Your task to perform on an android device: choose inbox layout in the gmail app Image 0: 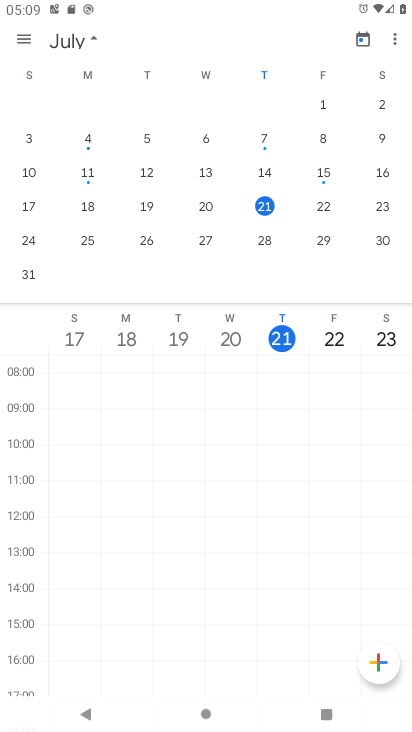
Step 0: press home button
Your task to perform on an android device: choose inbox layout in the gmail app Image 1: 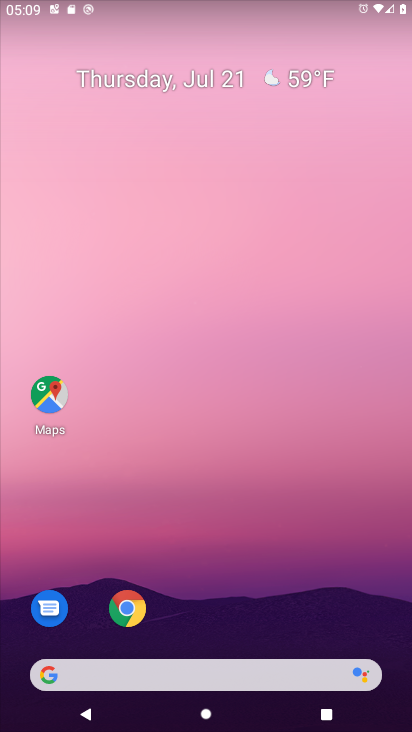
Step 1: drag from (251, 674) to (302, 67)
Your task to perform on an android device: choose inbox layout in the gmail app Image 2: 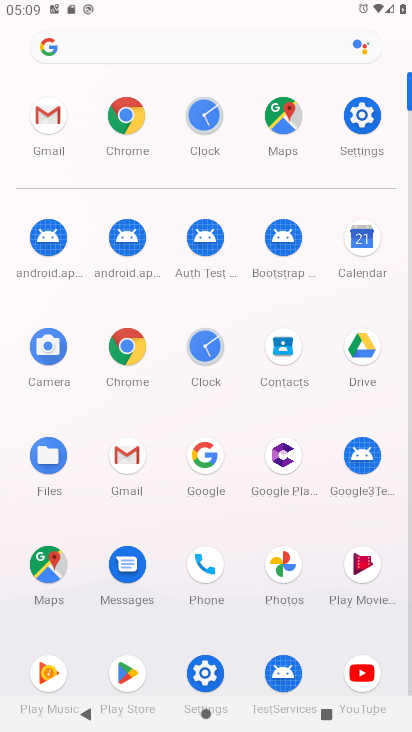
Step 2: click (135, 454)
Your task to perform on an android device: choose inbox layout in the gmail app Image 3: 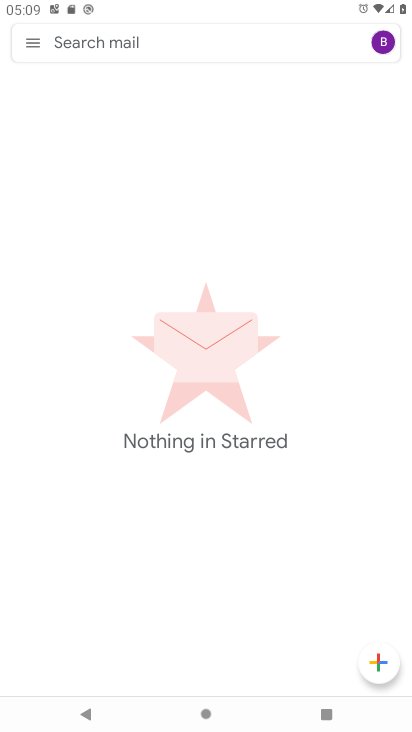
Step 3: click (35, 36)
Your task to perform on an android device: choose inbox layout in the gmail app Image 4: 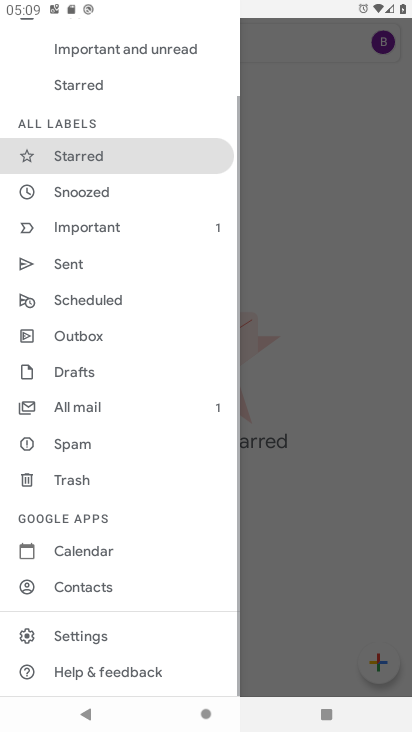
Step 4: click (95, 636)
Your task to perform on an android device: choose inbox layout in the gmail app Image 5: 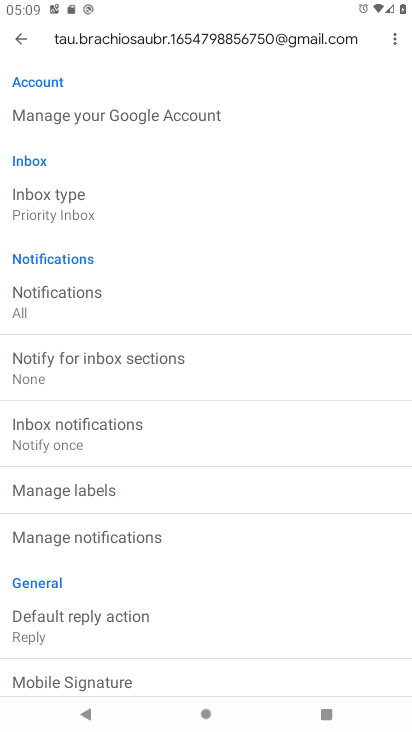
Step 5: click (92, 201)
Your task to perform on an android device: choose inbox layout in the gmail app Image 6: 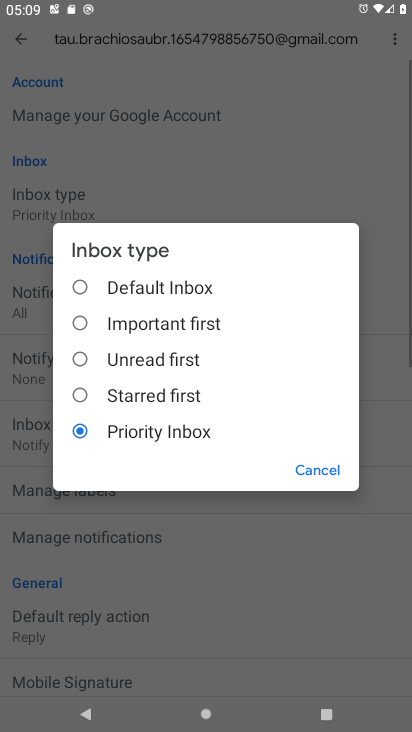
Step 6: click (76, 281)
Your task to perform on an android device: choose inbox layout in the gmail app Image 7: 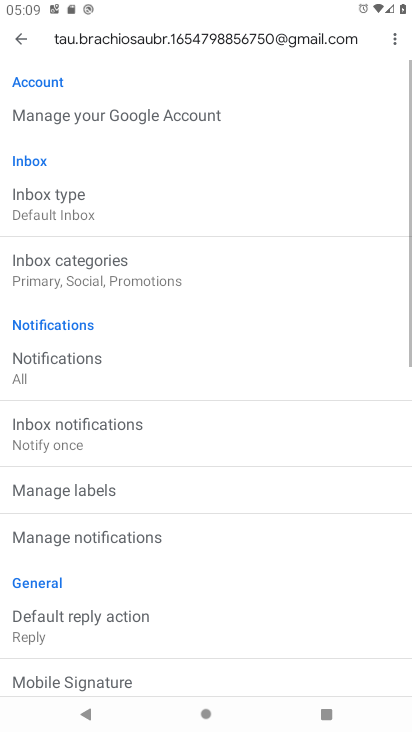
Step 7: task complete